Your task to perform on an android device: clear history in the chrome app Image 0: 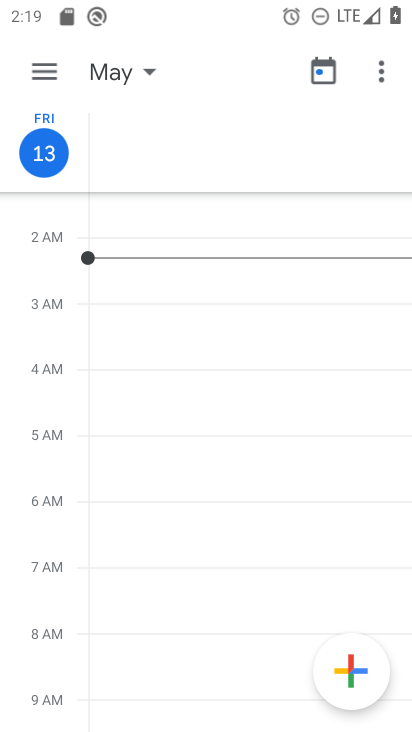
Step 0: press home button
Your task to perform on an android device: clear history in the chrome app Image 1: 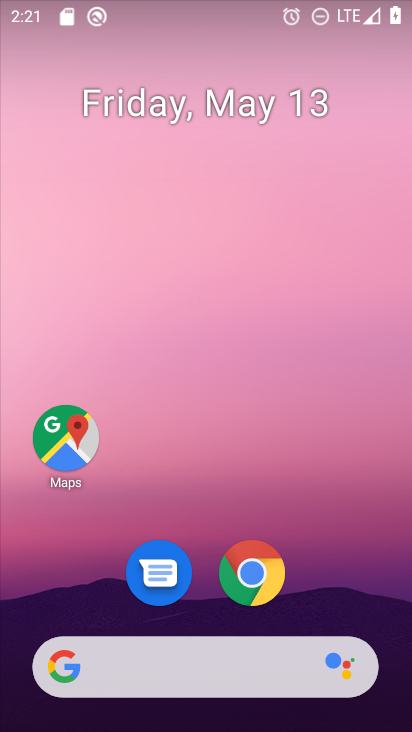
Step 1: click (270, 589)
Your task to perform on an android device: clear history in the chrome app Image 2: 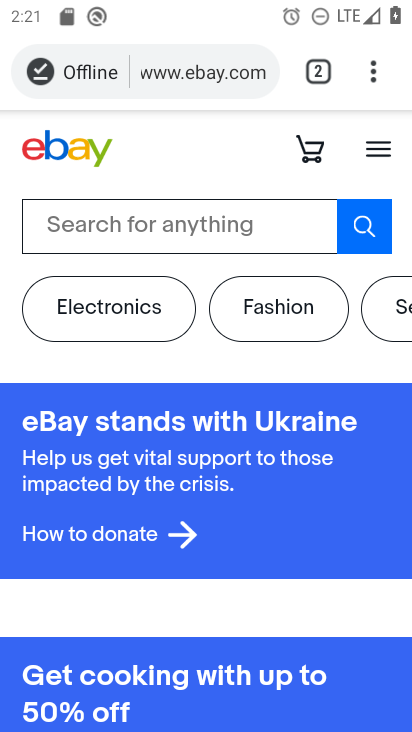
Step 2: click (376, 65)
Your task to perform on an android device: clear history in the chrome app Image 3: 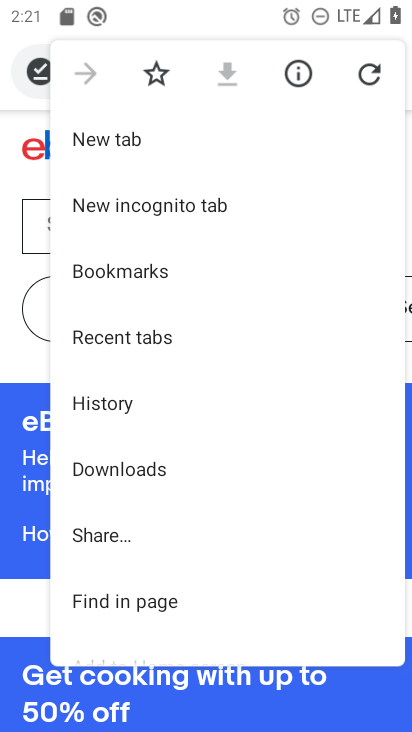
Step 3: click (114, 407)
Your task to perform on an android device: clear history in the chrome app Image 4: 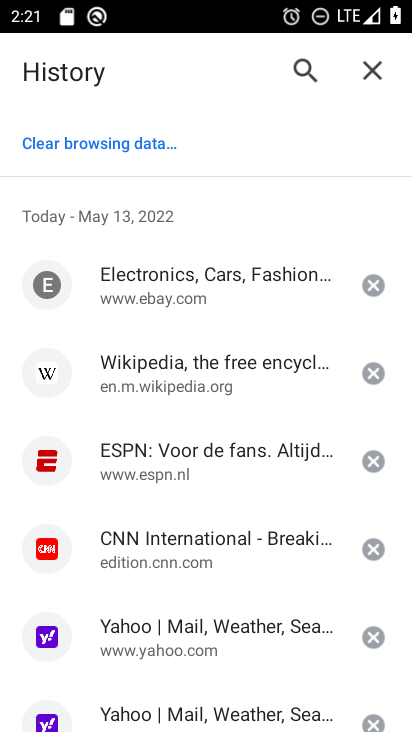
Step 4: click (105, 141)
Your task to perform on an android device: clear history in the chrome app Image 5: 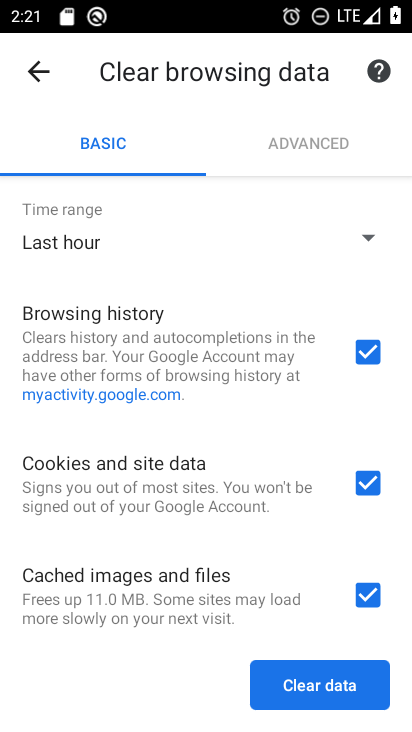
Step 5: click (343, 692)
Your task to perform on an android device: clear history in the chrome app Image 6: 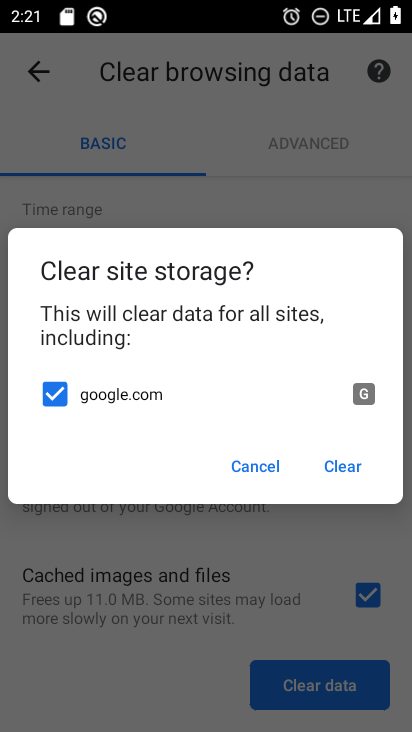
Step 6: click (342, 462)
Your task to perform on an android device: clear history in the chrome app Image 7: 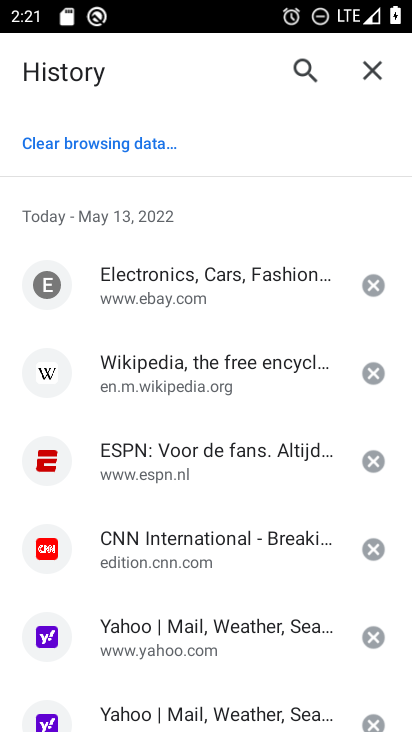
Step 7: task complete